Your task to perform on an android device: choose inbox layout in the gmail app Image 0: 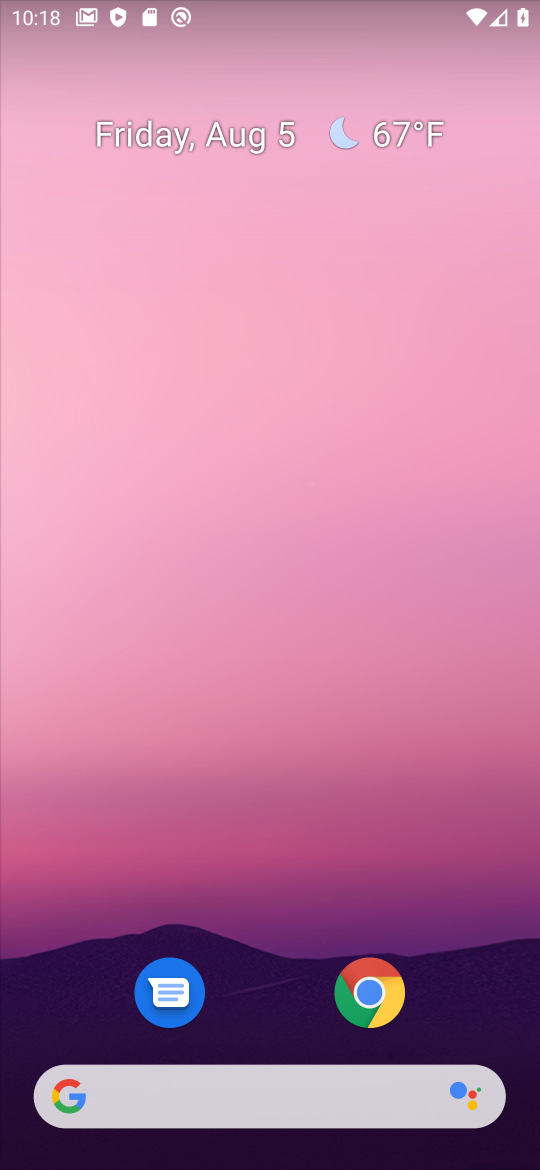
Step 0: drag from (212, 955) to (47, 23)
Your task to perform on an android device: choose inbox layout in the gmail app Image 1: 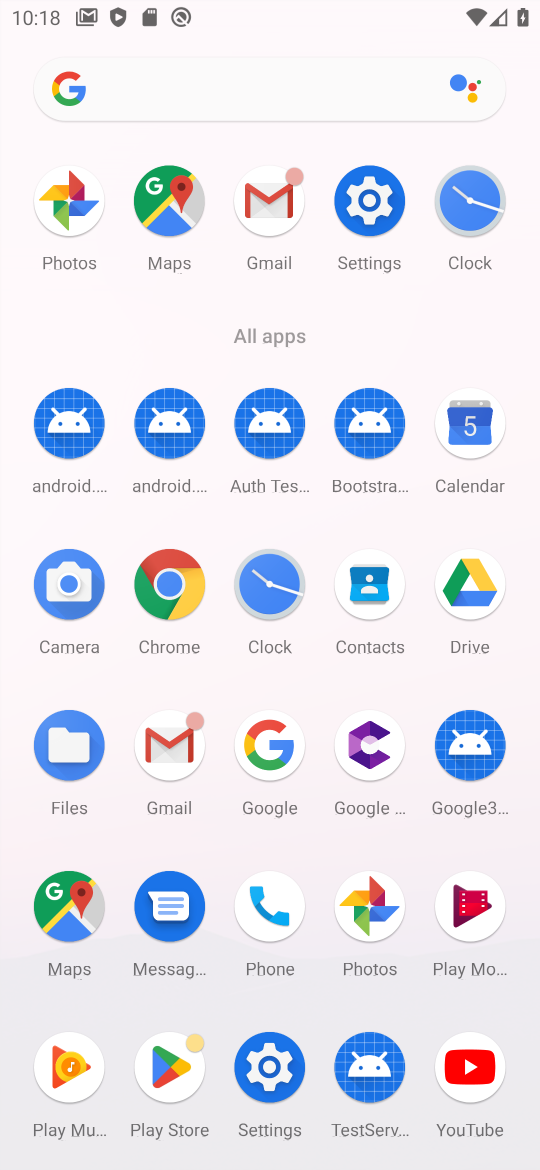
Step 1: click (267, 247)
Your task to perform on an android device: choose inbox layout in the gmail app Image 2: 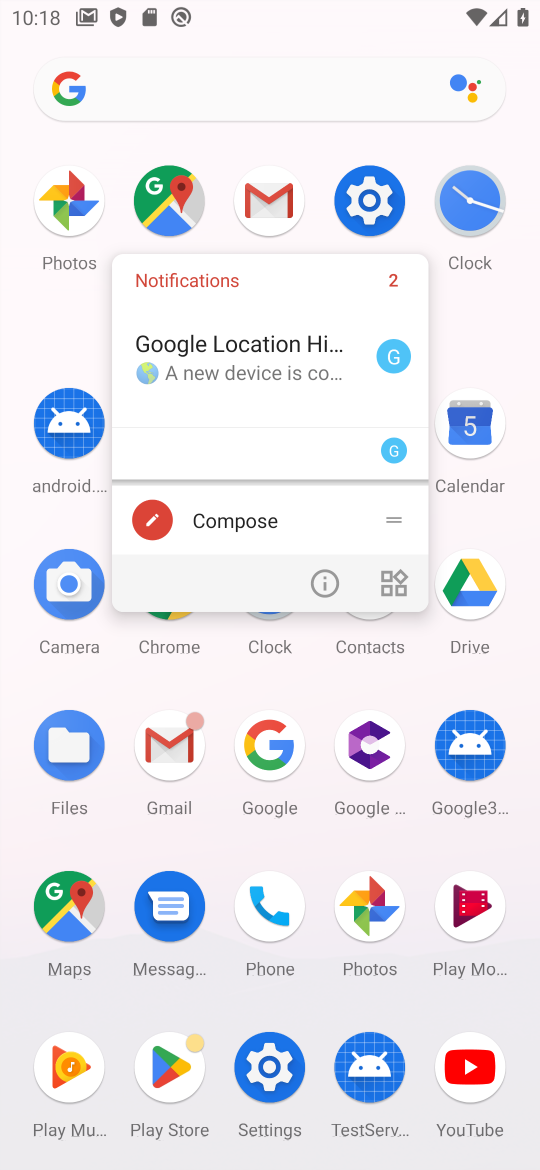
Step 2: click (267, 250)
Your task to perform on an android device: choose inbox layout in the gmail app Image 3: 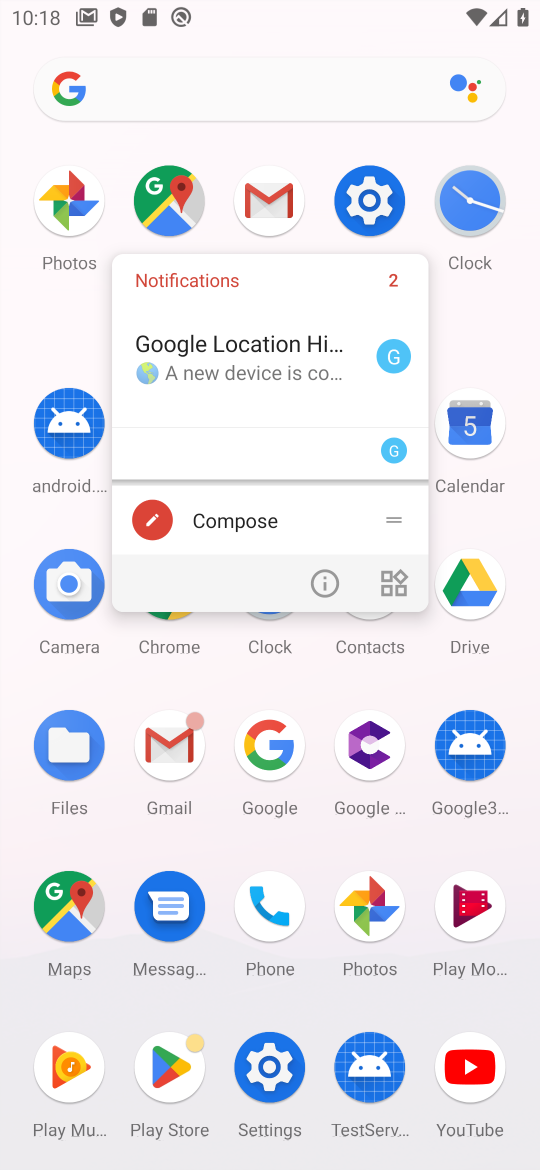
Step 3: click (270, 212)
Your task to perform on an android device: choose inbox layout in the gmail app Image 4: 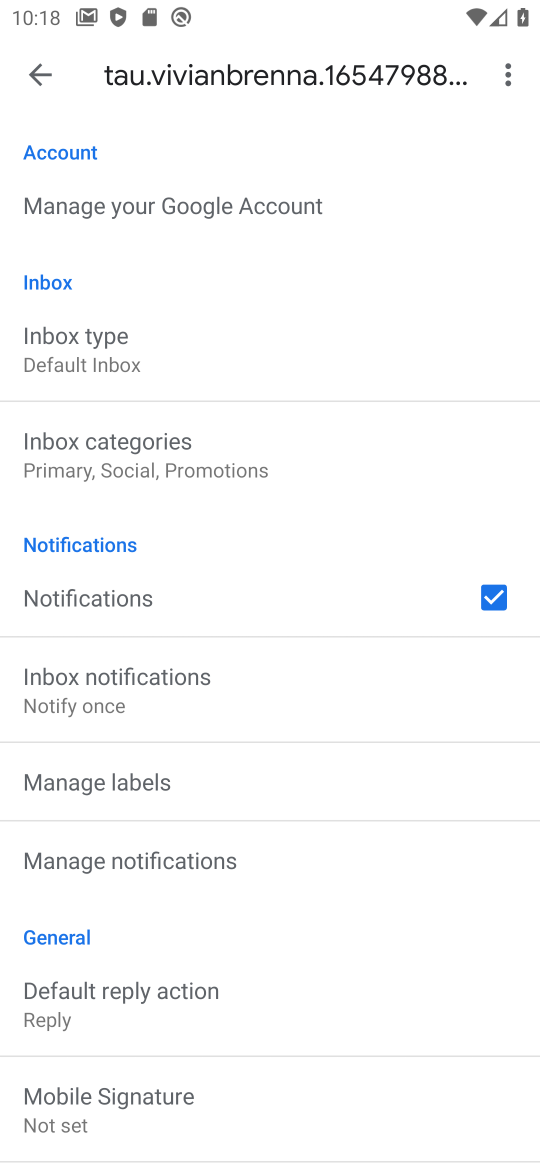
Step 4: click (113, 337)
Your task to perform on an android device: choose inbox layout in the gmail app Image 5: 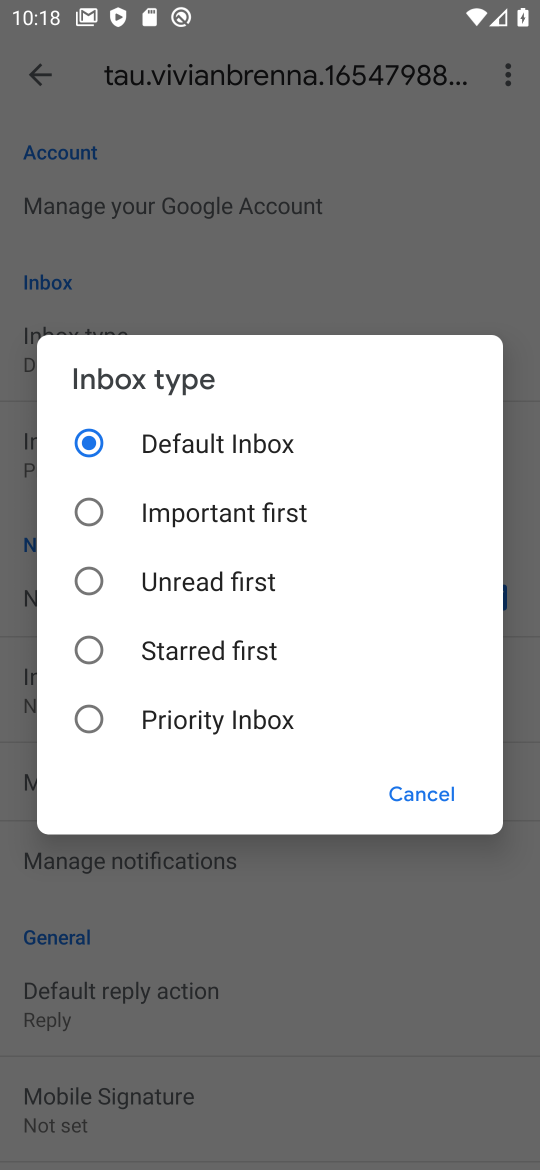
Step 5: click (90, 525)
Your task to perform on an android device: choose inbox layout in the gmail app Image 6: 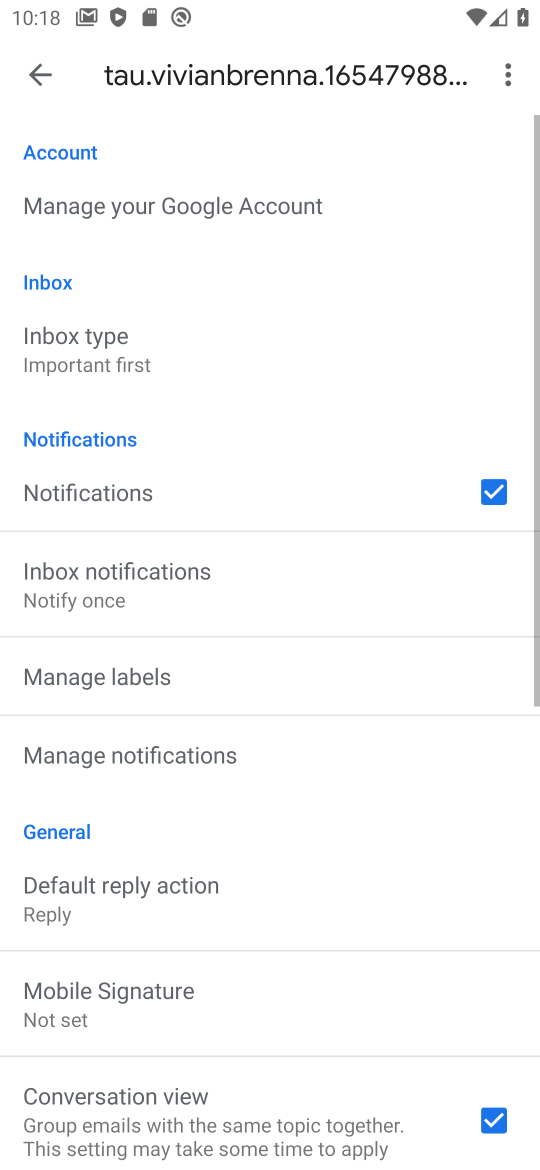
Step 6: task complete